Your task to perform on an android device: Search for Italian restaurants on Maps Image 0: 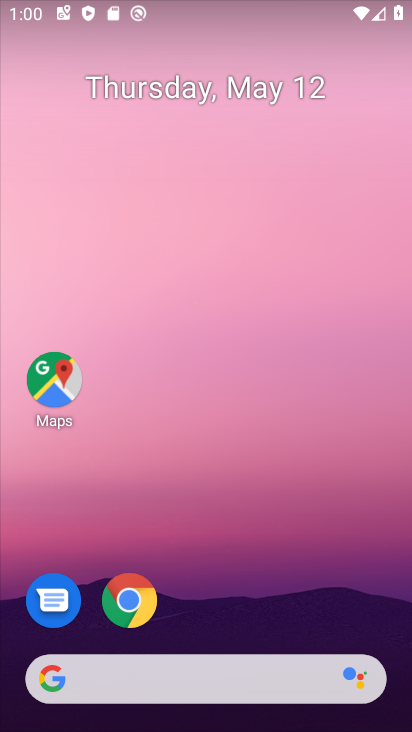
Step 0: click (63, 364)
Your task to perform on an android device: Search for Italian restaurants on Maps Image 1: 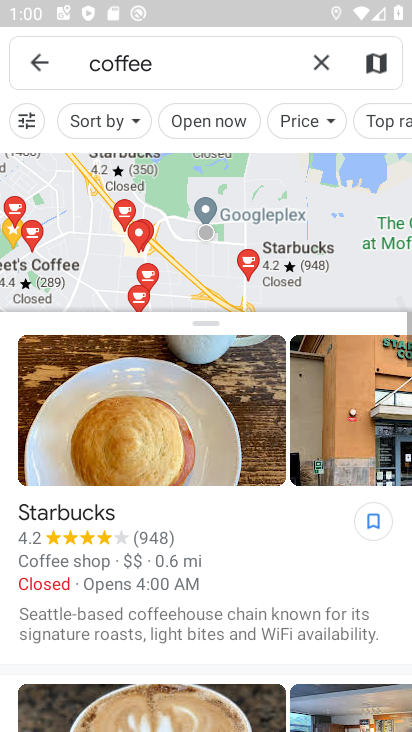
Step 1: click (330, 57)
Your task to perform on an android device: Search for Italian restaurants on Maps Image 2: 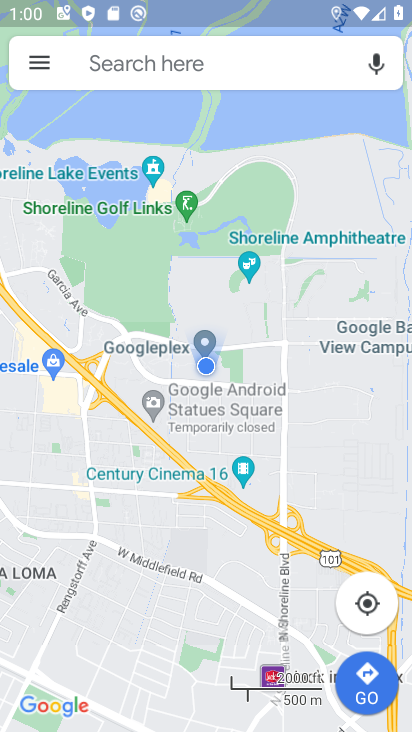
Step 2: click (276, 72)
Your task to perform on an android device: Search for Italian restaurants on Maps Image 3: 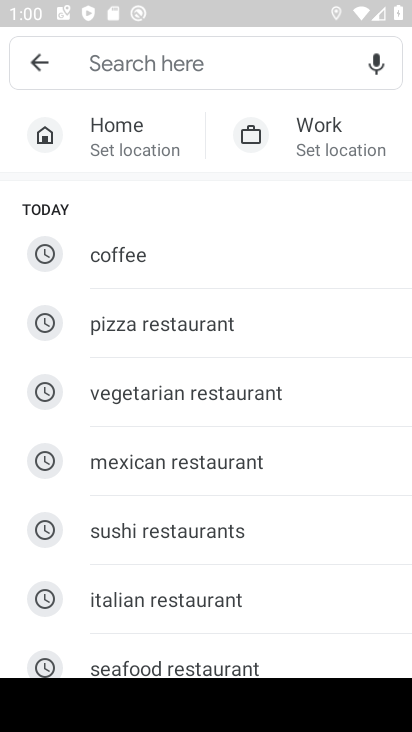
Step 3: type "Italian restaurants"
Your task to perform on an android device: Search for Italian restaurants on Maps Image 4: 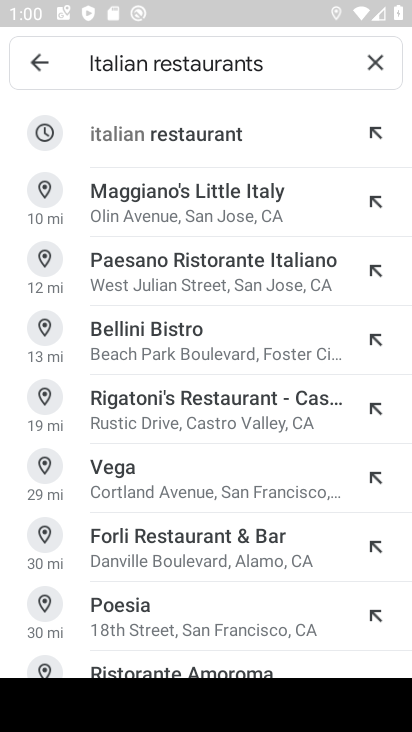
Step 4: click (161, 133)
Your task to perform on an android device: Search for Italian restaurants on Maps Image 5: 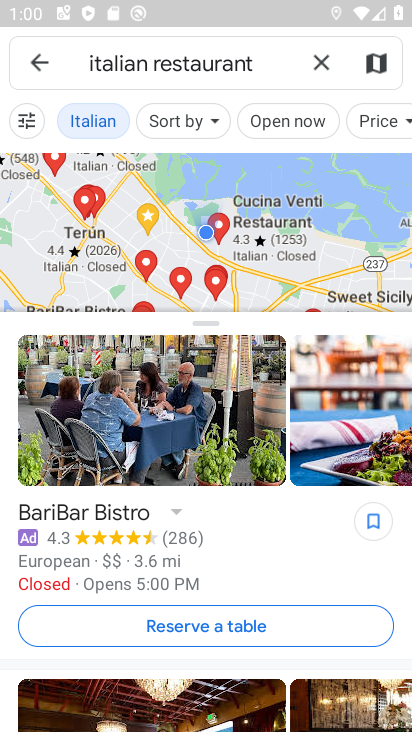
Step 5: task complete